Your task to perform on an android device: toggle wifi Image 0: 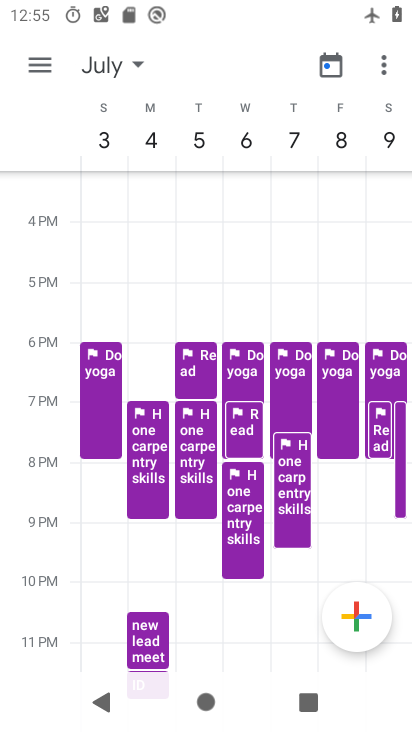
Step 0: press home button
Your task to perform on an android device: toggle wifi Image 1: 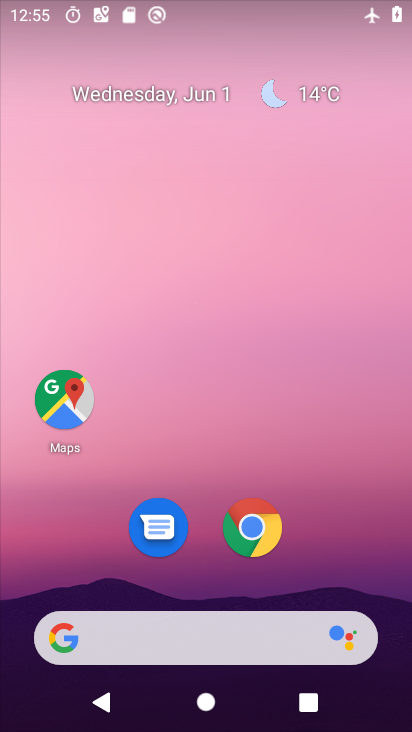
Step 1: drag from (378, 601) to (391, 19)
Your task to perform on an android device: toggle wifi Image 2: 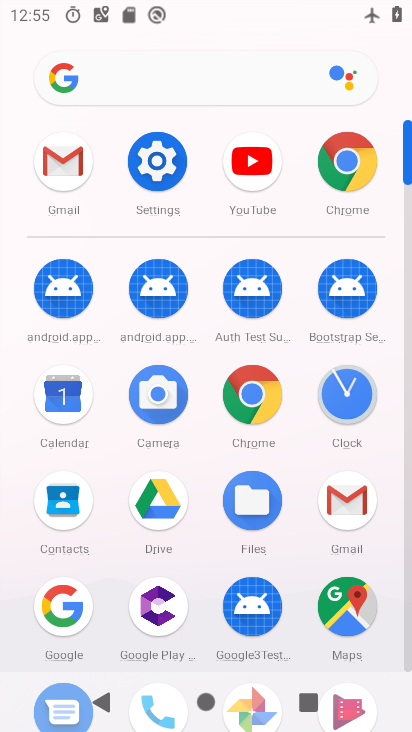
Step 2: click (143, 160)
Your task to perform on an android device: toggle wifi Image 3: 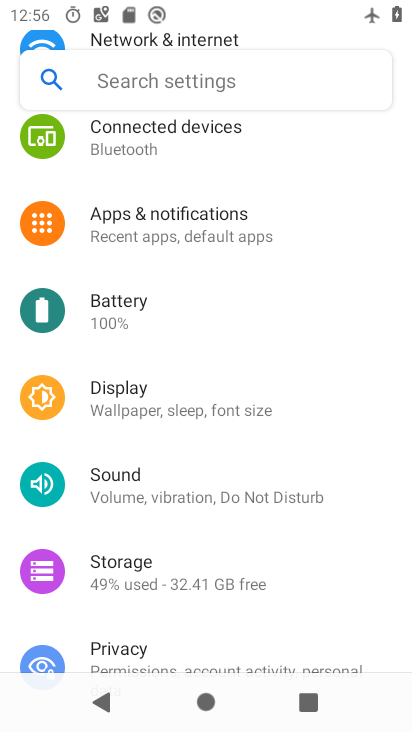
Step 3: drag from (367, 197) to (385, 442)
Your task to perform on an android device: toggle wifi Image 4: 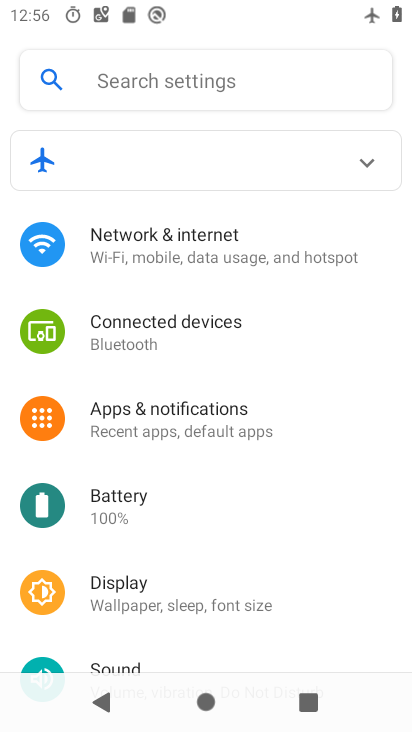
Step 4: click (176, 258)
Your task to perform on an android device: toggle wifi Image 5: 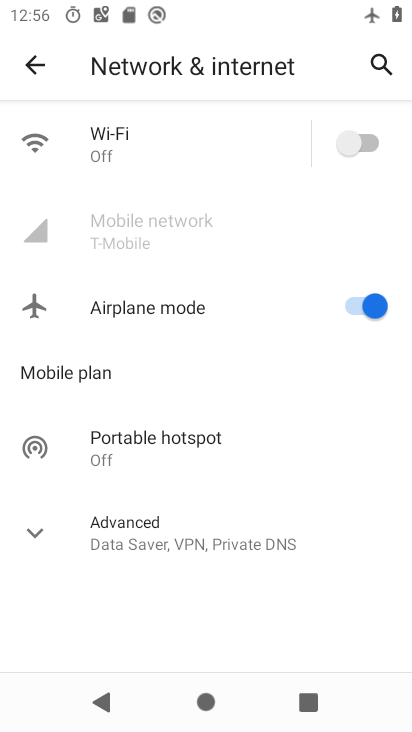
Step 5: click (352, 140)
Your task to perform on an android device: toggle wifi Image 6: 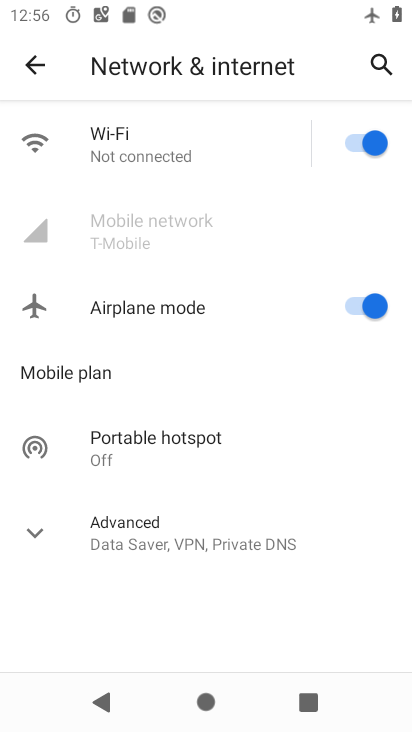
Step 6: task complete